Your task to perform on an android device: clear history in the chrome app Image 0: 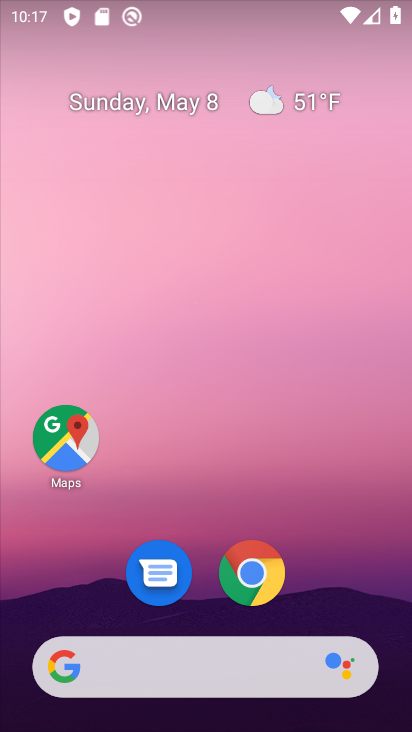
Step 0: click (258, 574)
Your task to perform on an android device: clear history in the chrome app Image 1: 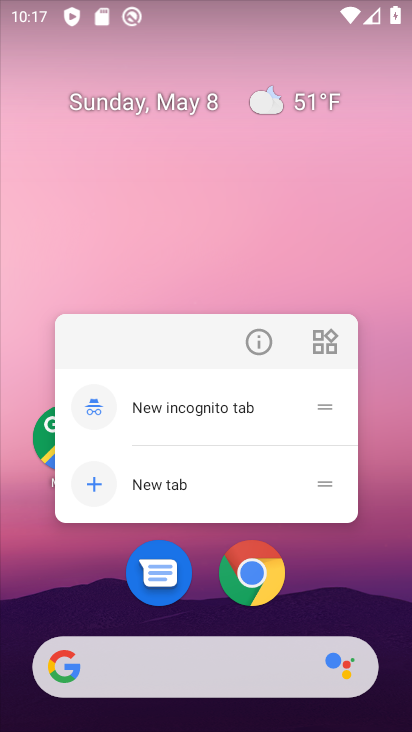
Step 1: click (256, 595)
Your task to perform on an android device: clear history in the chrome app Image 2: 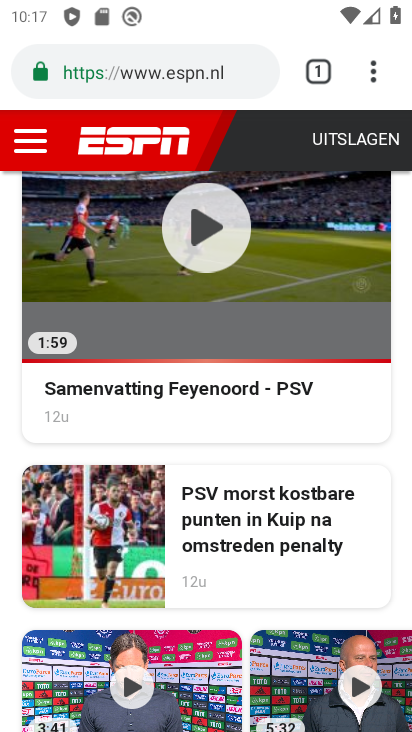
Step 2: click (374, 70)
Your task to perform on an android device: clear history in the chrome app Image 3: 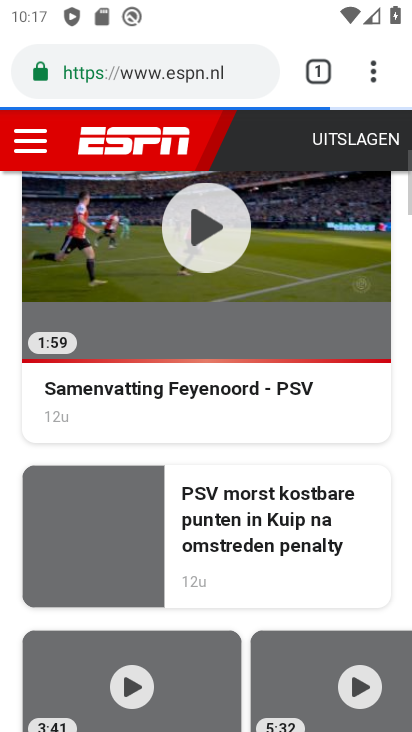
Step 3: click (374, 71)
Your task to perform on an android device: clear history in the chrome app Image 4: 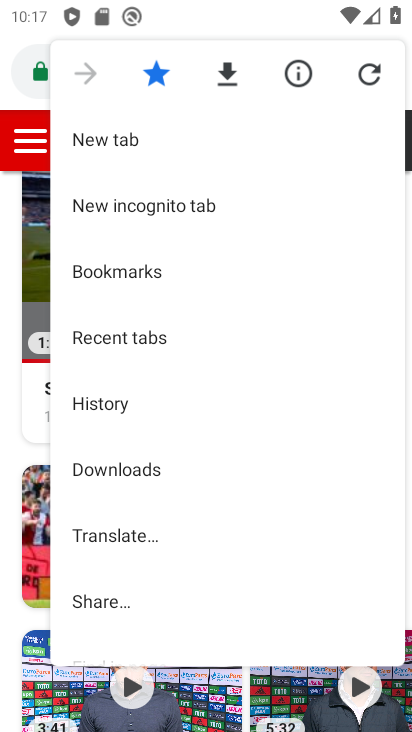
Step 4: click (115, 406)
Your task to perform on an android device: clear history in the chrome app Image 5: 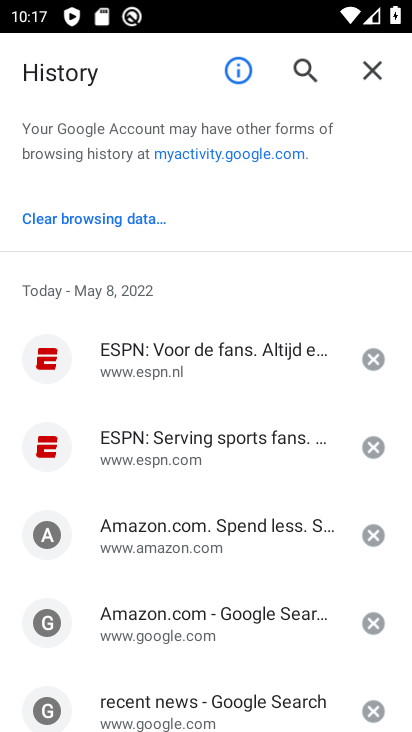
Step 5: click (116, 213)
Your task to perform on an android device: clear history in the chrome app Image 6: 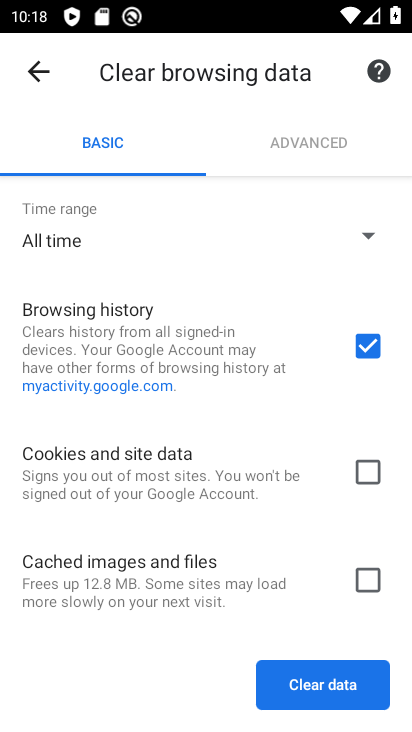
Step 6: click (370, 578)
Your task to perform on an android device: clear history in the chrome app Image 7: 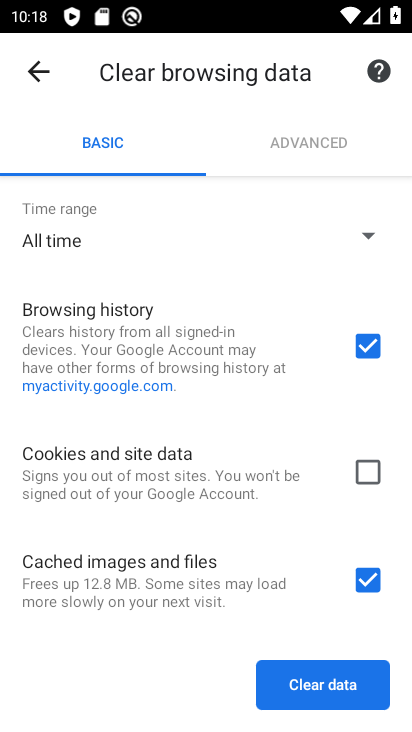
Step 7: click (370, 473)
Your task to perform on an android device: clear history in the chrome app Image 8: 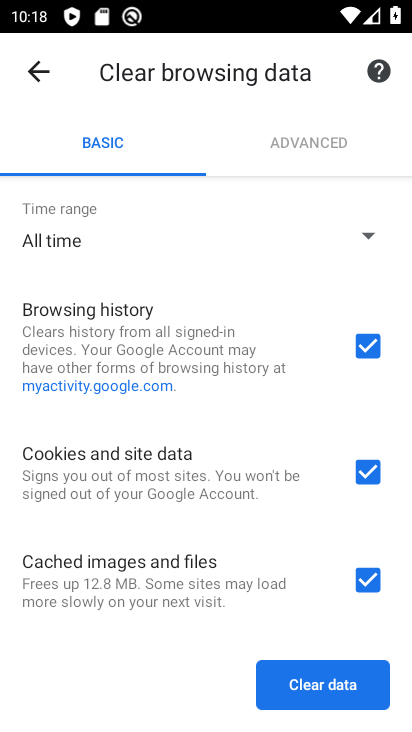
Step 8: click (321, 680)
Your task to perform on an android device: clear history in the chrome app Image 9: 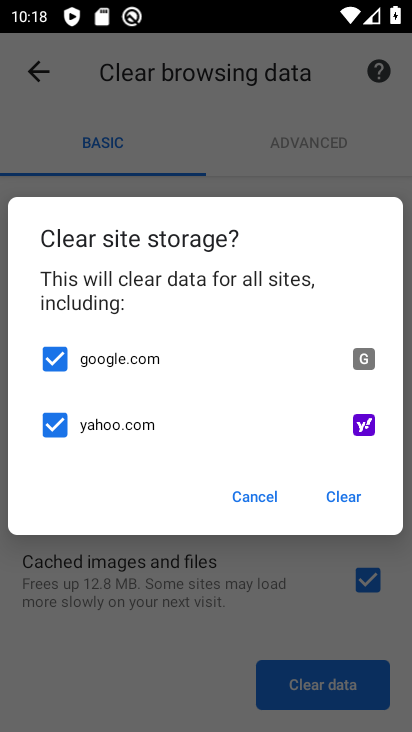
Step 9: click (332, 491)
Your task to perform on an android device: clear history in the chrome app Image 10: 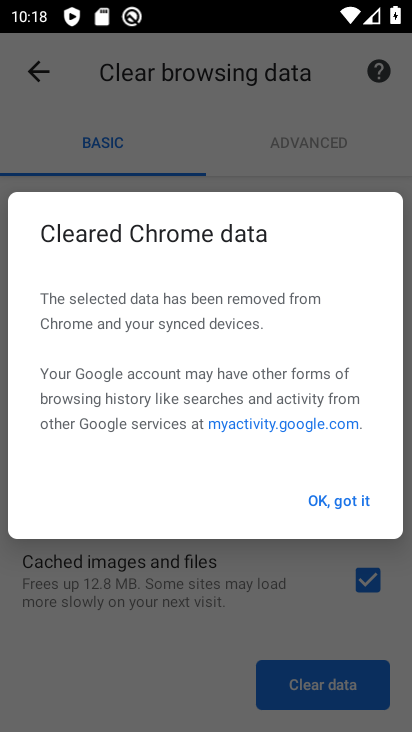
Step 10: click (343, 502)
Your task to perform on an android device: clear history in the chrome app Image 11: 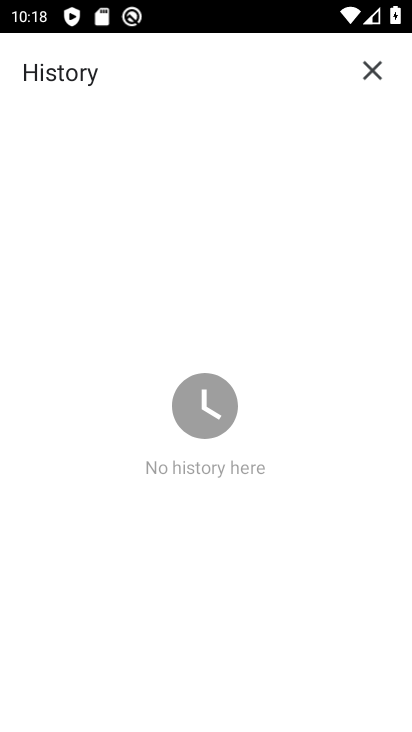
Step 11: task complete